Your task to perform on an android device: Open ESPN.com Image 0: 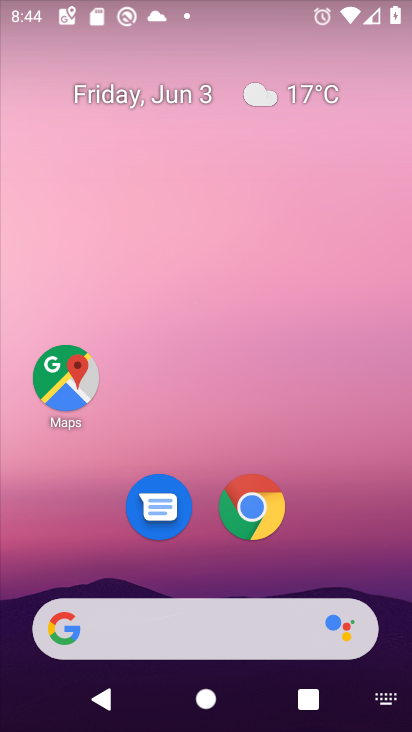
Step 0: press home button
Your task to perform on an android device: Open ESPN.com Image 1: 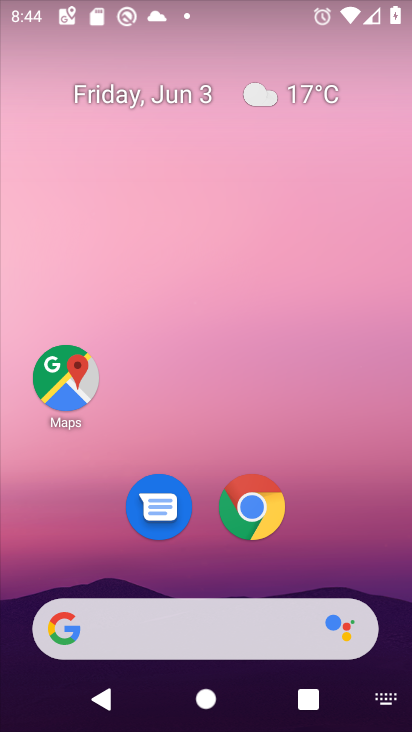
Step 1: click (271, 507)
Your task to perform on an android device: Open ESPN.com Image 2: 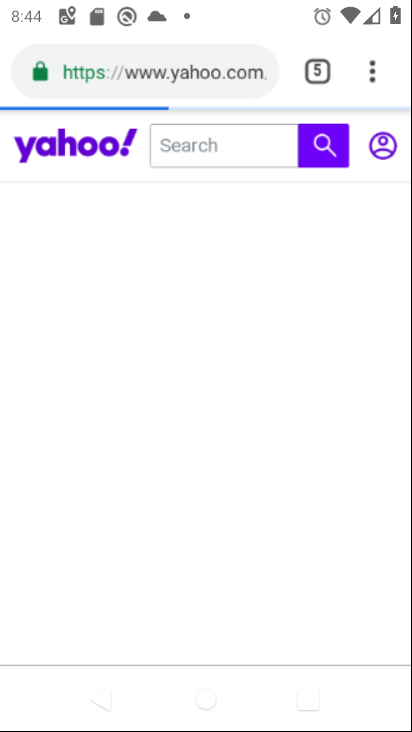
Step 2: click (310, 73)
Your task to perform on an android device: Open ESPN.com Image 3: 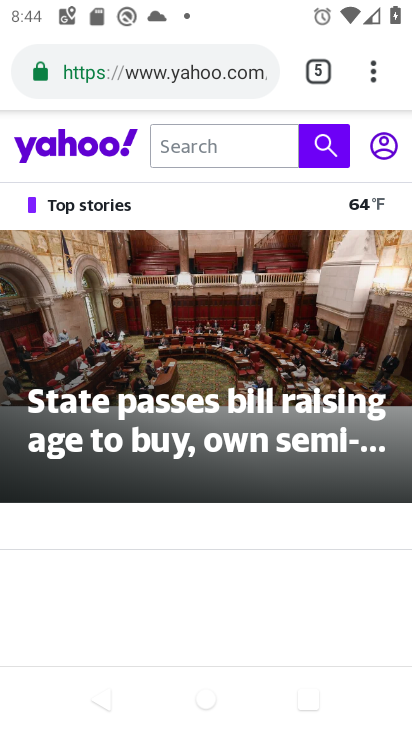
Step 3: click (36, 64)
Your task to perform on an android device: Open ESPN.com Image 4: 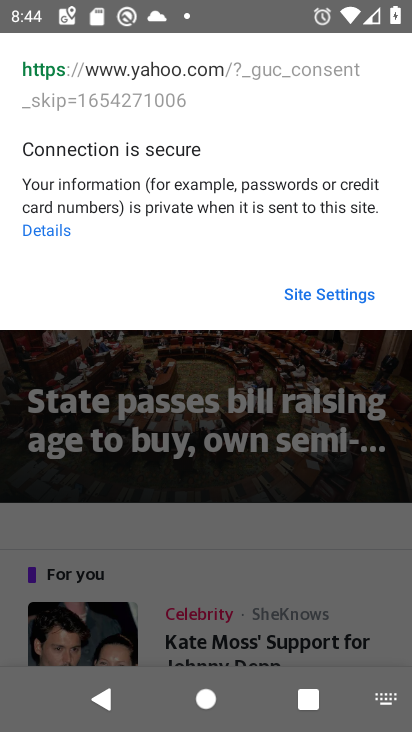
Step 4: click (347, 405)
Your task to perform on an android device: Open ESPN.com Image 5: 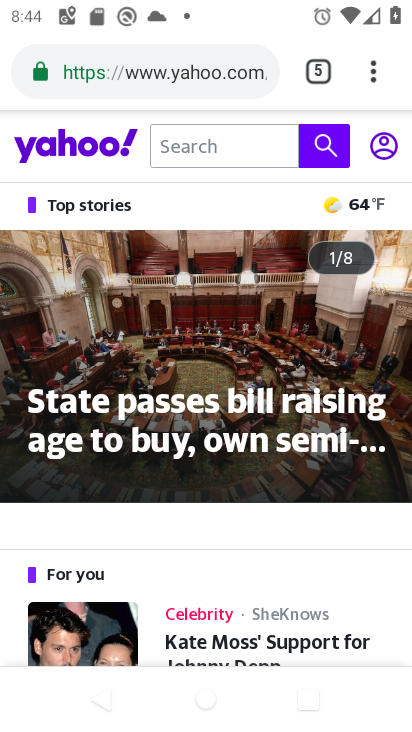
Step 5: click (309, 73)
Your task to perform on an android device: Open ESPN.com Image 6: 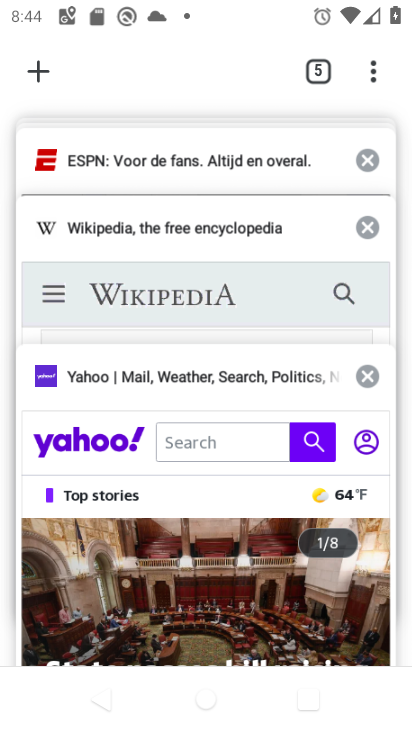
Step 6: click (35, 73)
Your task to perform on an android device: Open ESPN.com Image 7: 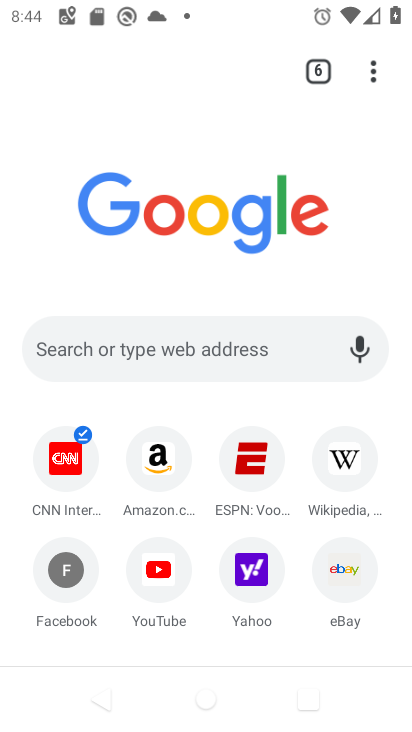
Step 7: click (248, 478)
Your task to perform on an android device: Open ESPN.com Image 8: 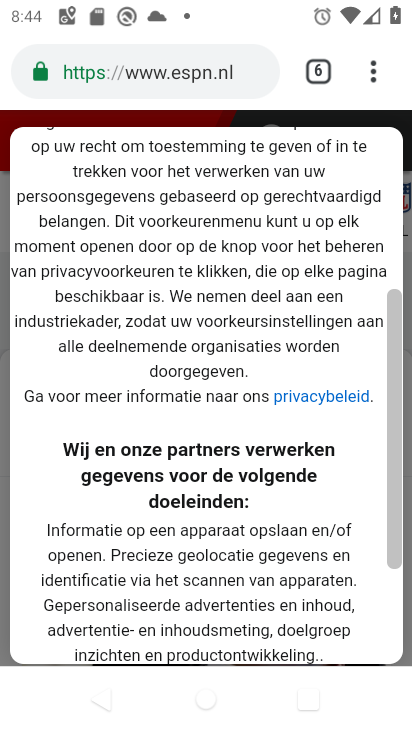
Step 8: task complete